Your task to perform on an android device: turn vacation reply on in the gmail app Image 0: 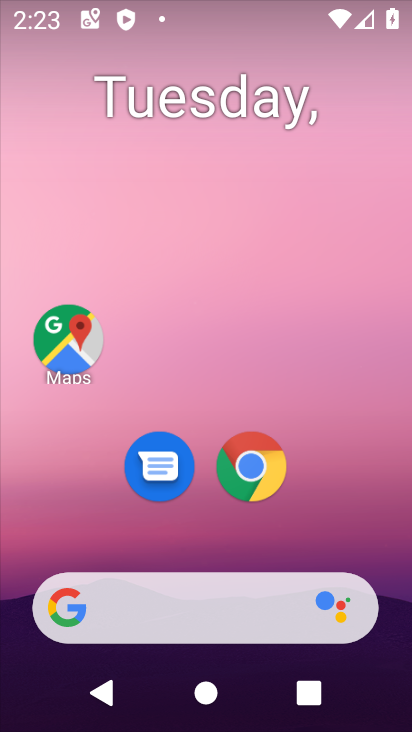
Step 0: drag from (387, 534) to (196, 4)
Your task to perform on an android device: turn vacation reply on in the gmail app Image 1: 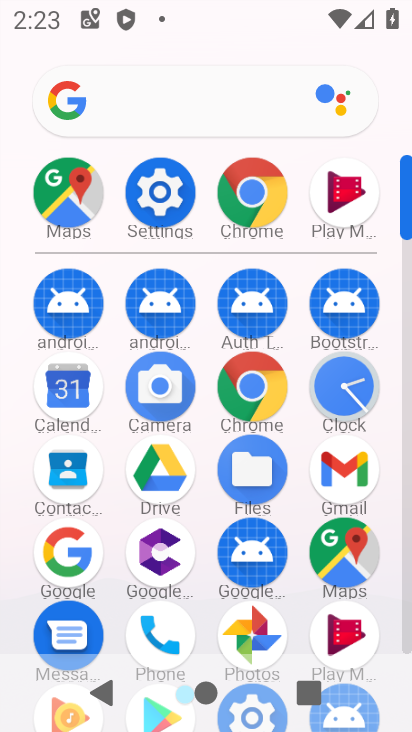
Step 1: click (352, 465)
Your task to perform on an android device: turn vacation reply on in the gmail app Image 2: 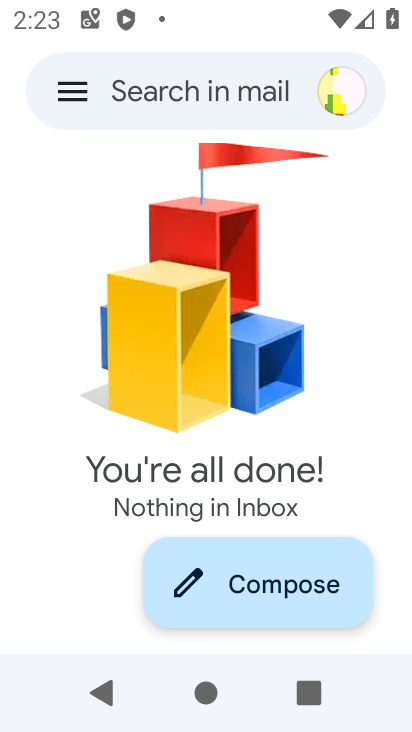
Step 2: task complete